Your task to perform on an android device: turn notification dots on Image 0: 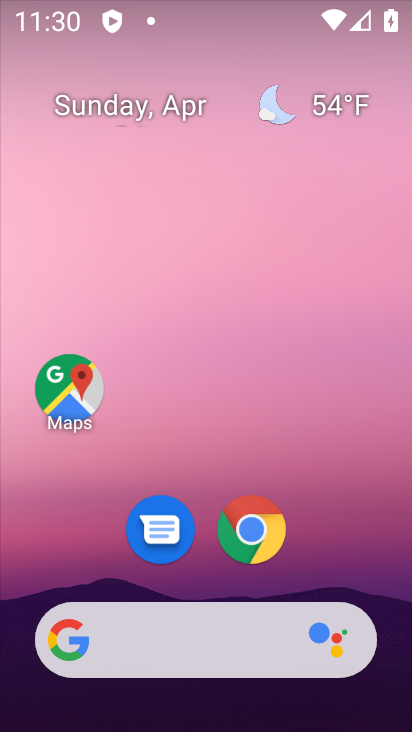
Step 0: drag from (319, 551) to (193, 43)
Your task to perform on an android device: turn notification dots on Image 1: 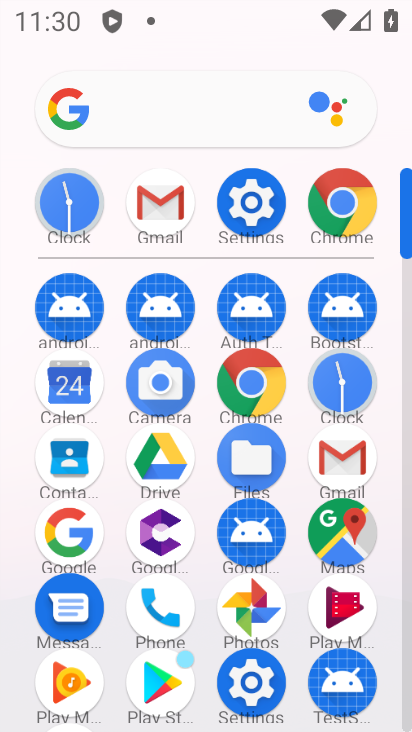
Step 1: click (250, 217)
Your task to perform on an android device: turn notification dots on Image 2: 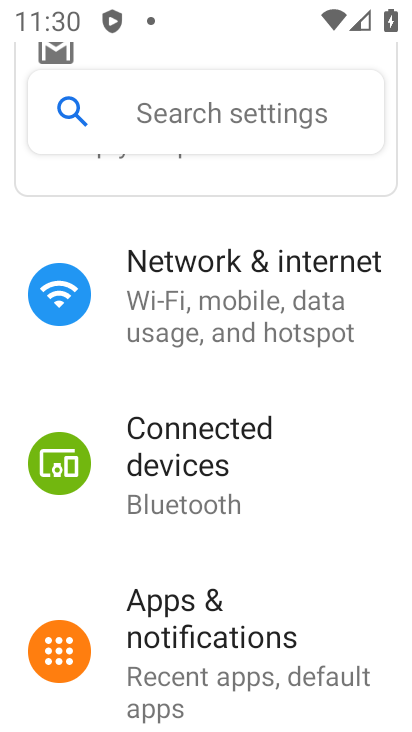
Step 2: click (259, 638)
Your task to perform on an android device: turn notification dots on Image 3: 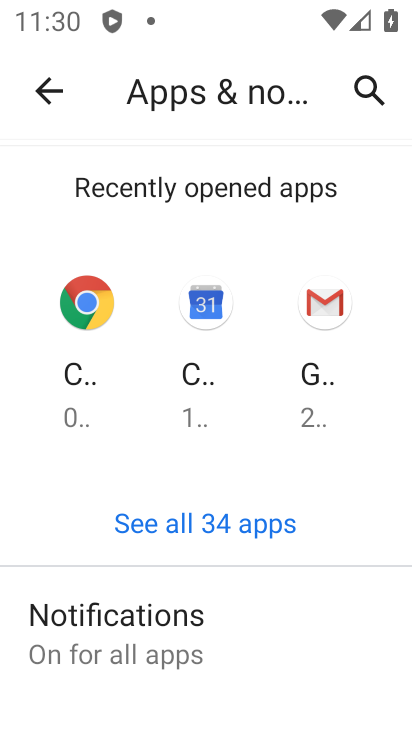
Step 3: drag from (267, 621) to (200, 189)
Your task to perform on an android device: turn notification dots on Image 4: 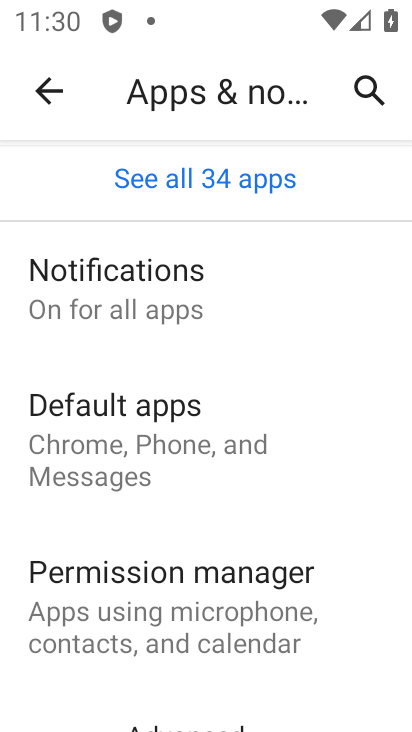
Step 4: drag from (242, 661) to (150, 310)
Your task to perform on an android device: turn notification dots on Image 5: 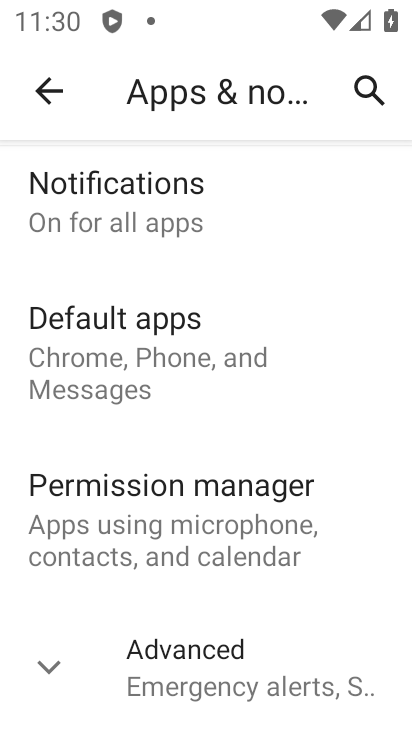
Step 5: drag from (199, 573) to (219, 255)
Your task to perform on an android device: turn notification dots on Image 6: 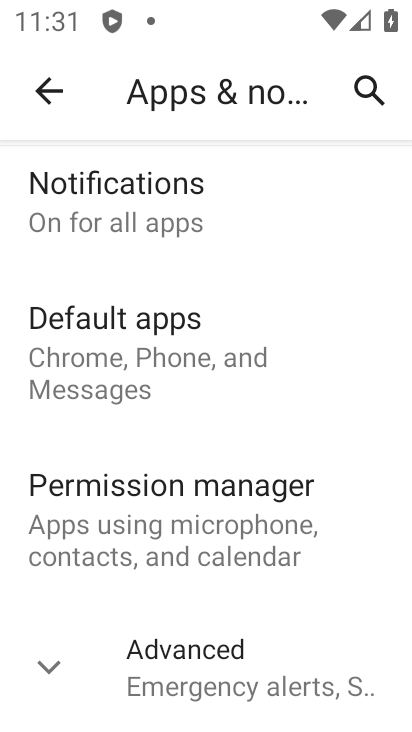
Step 6: drag from (212, 594) to (237, 257)
Your task to perform on an android device: turn notification dots on Image 7: 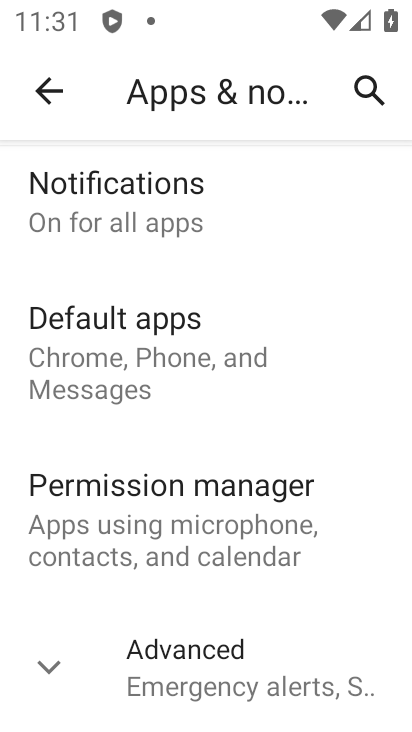
Step 7: click (192, 221)
Your task to perform on an android device: turn notification dots on Image 8: 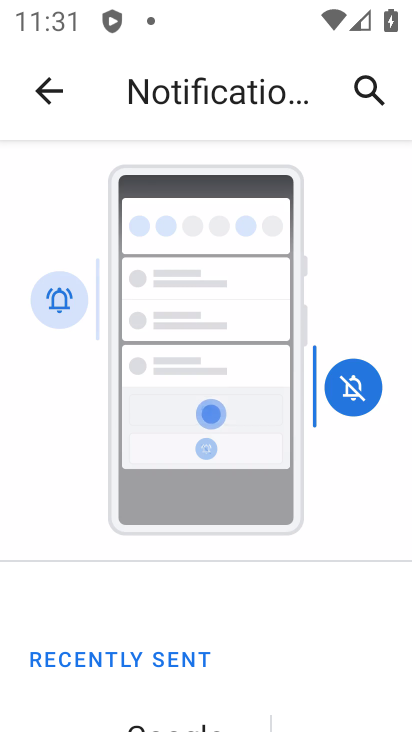
Step 8: drag from (285, 608) to (196, 172)
Your task to perform on an android device: turn notification dots on Image 9: 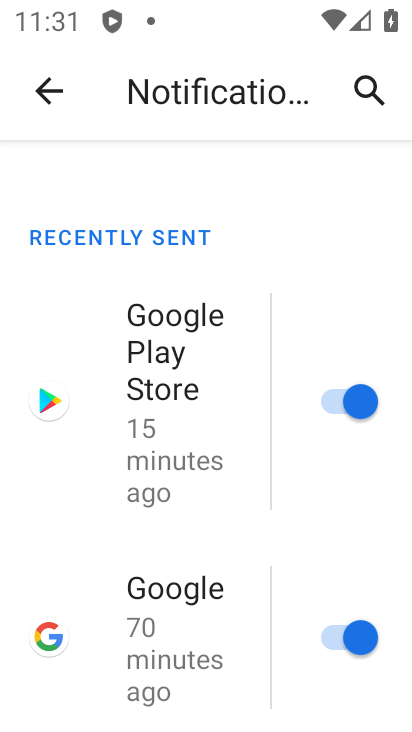
Step 9: drag from (234, 656) to (184, 198)
Your task to perform on an android device: turn notification dots on Image 10: 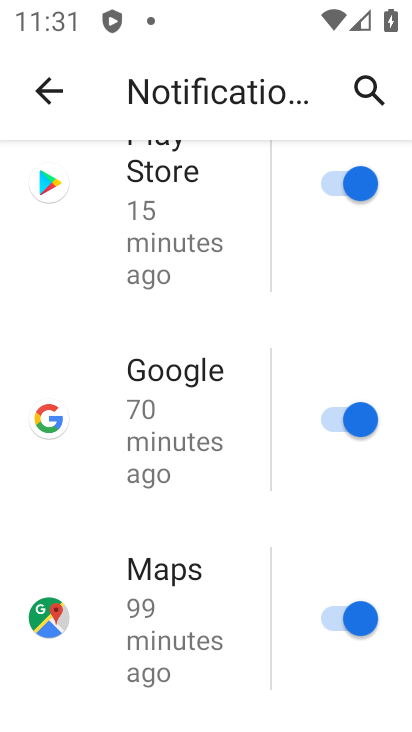
Step 10: drag from (239, 646) to (177, 186)
Your task to perform on an android device: turn notification dots on Image 11: 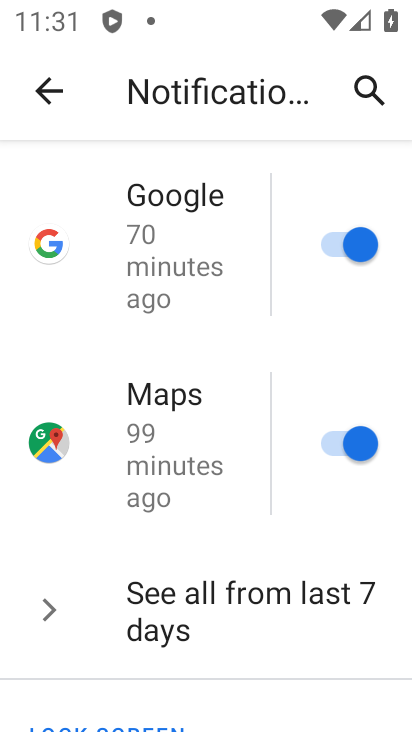
Step 11: drag from (213, 642) to (190, 241)
Your task to perform on an android device: turn notification dots on Image 12: 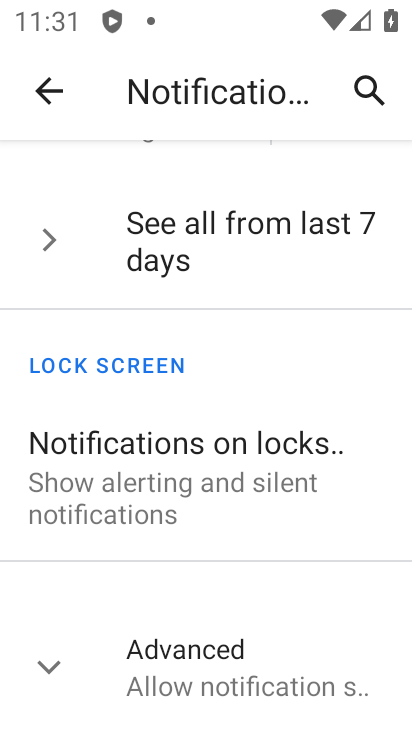
Step 12: click (227, 658)
Your task to perform on an android device: turn notification dots on Image 13: 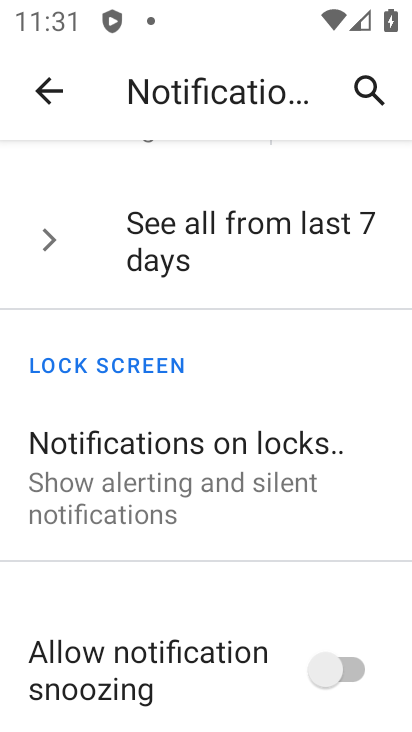
Step 13: task complete